Your task to perform on an android device: Show the shopping cart on walmart. Add "macbook pro" to the cart on walmart Image 0: 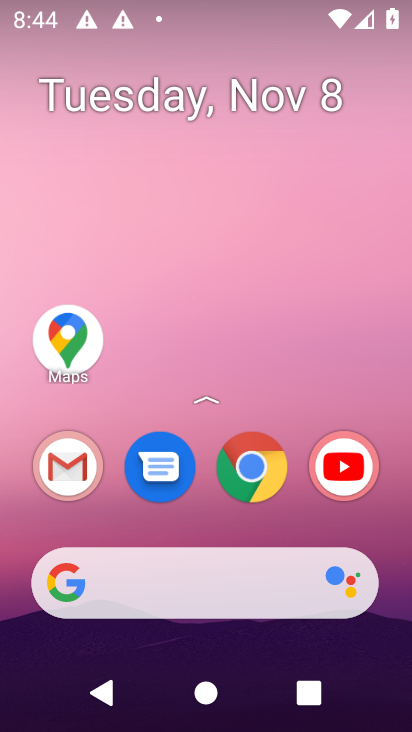
Step 0: click (114, 600)
Your task to perform on an android device: Show the shopping cart on walmart. Add "macbook pro" to the cart on walmart Image 1: 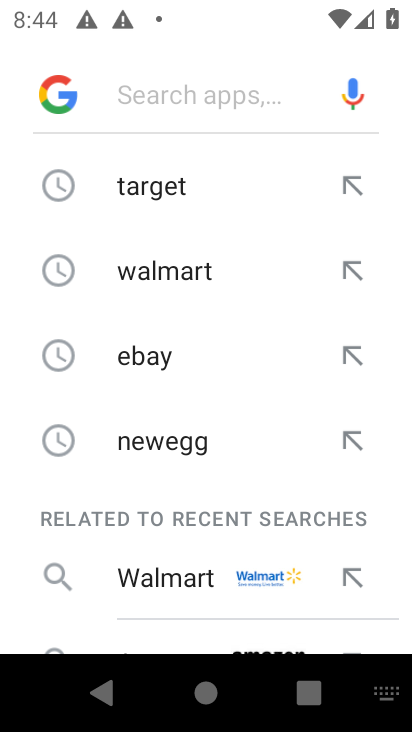
Step 1: click (231, 565)
Your task to perform on an android device: Show the shopping cart on walmart. Add "macbook pro" to the cart on walmart Image 2: 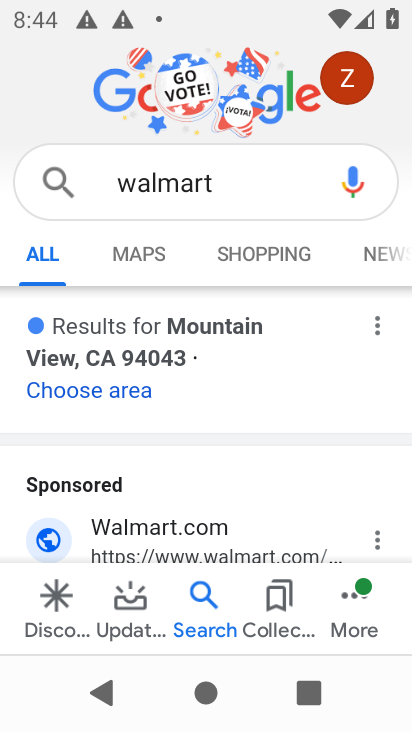
Step 2: click (184, 544)
Your task to perform on an android device: Show the shopping cart on walmart. Add "macbook pro" to the cart on walmart Image 3: 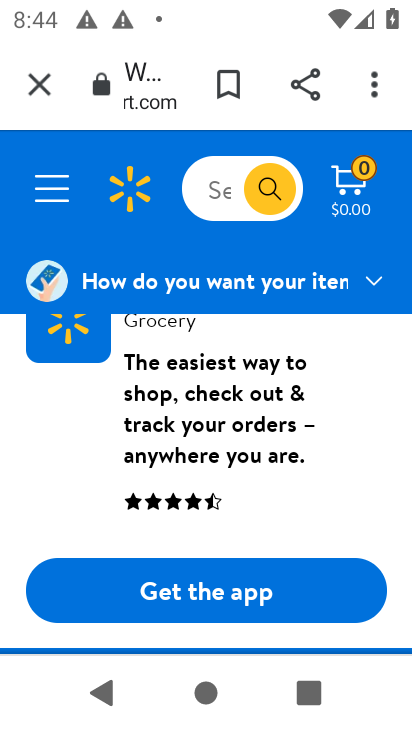
Step 3: click (221, 189)
Your task to perform on an android device: Show the shopping cart on walmart. Add "macbook pro" to the cart on walmart Image 4: 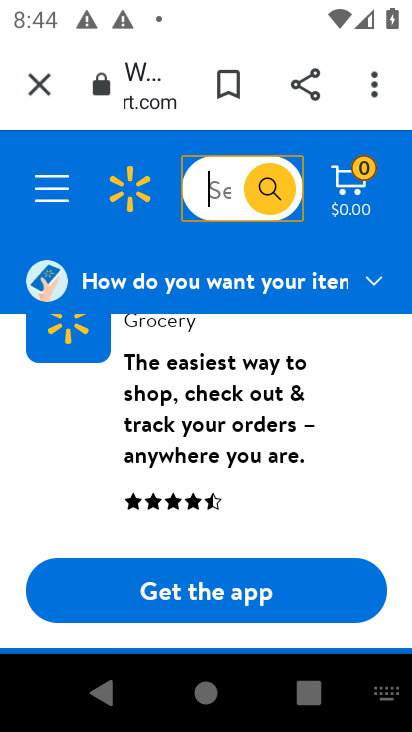
Step 4: type "macbook pro"
Your task to perform on an android device: Show the shopping cart on walmart. Add "macbook pro" to the cart on walmart Image 5: 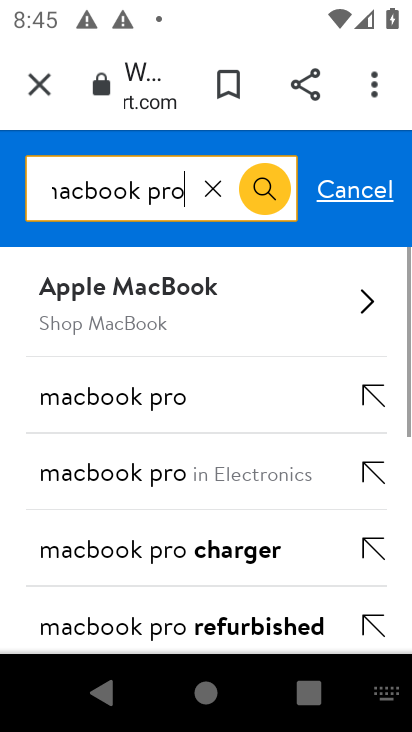
Step 5: click (166, 286)
Your task to perform on an android device: Show the shopping cart on walmart. Add "macbook pro" to the cart on walmart Image 6: 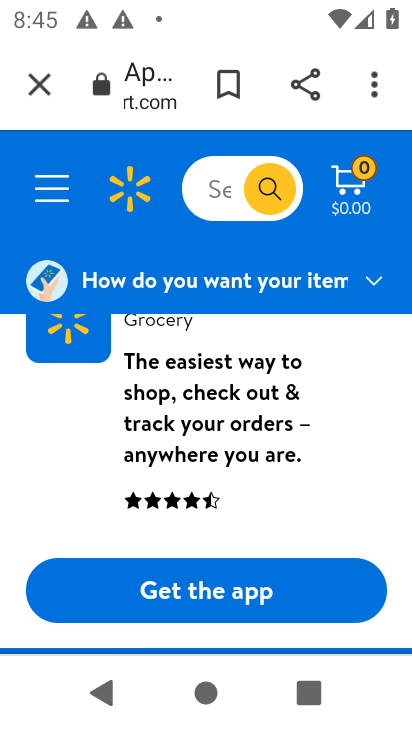
Step 6: task complete